Your task to perform on an android device: turn on the 24-hour format for clock Image 0: 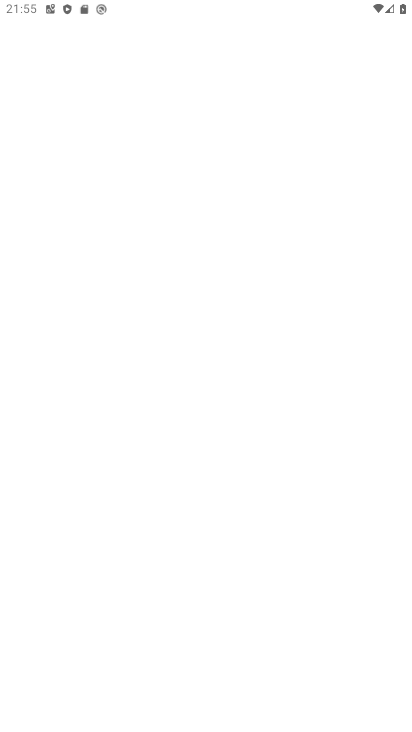
Step 0: drag from (184, 652) to (193, 180)
Your task to perform on an android device: turn on the 24-hour format for clock Image 1: 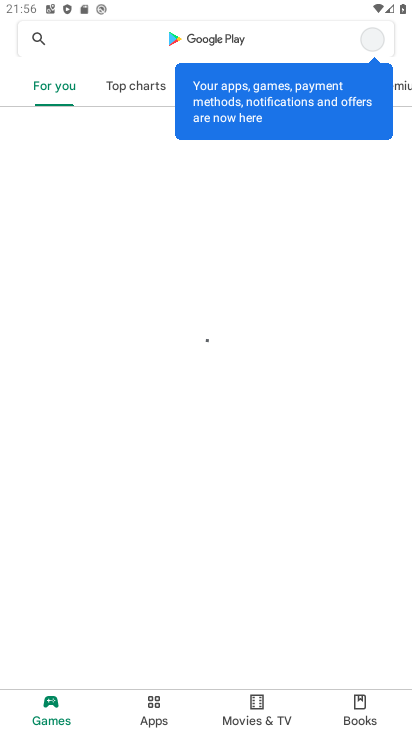
Step 1: press home button
Your task to perform on an android device: turn on the 24-hour format for clock Image 2: 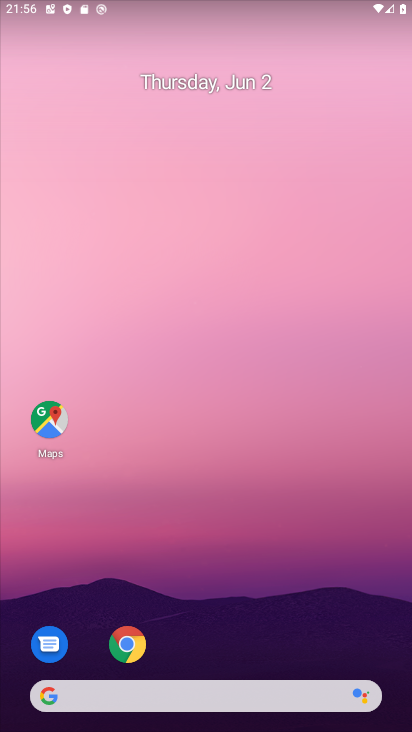
Step 2: drag from (216, 633) to (190, 244)
Your task to perform on an android device: turn on the 24-hour format for clock Image 3: 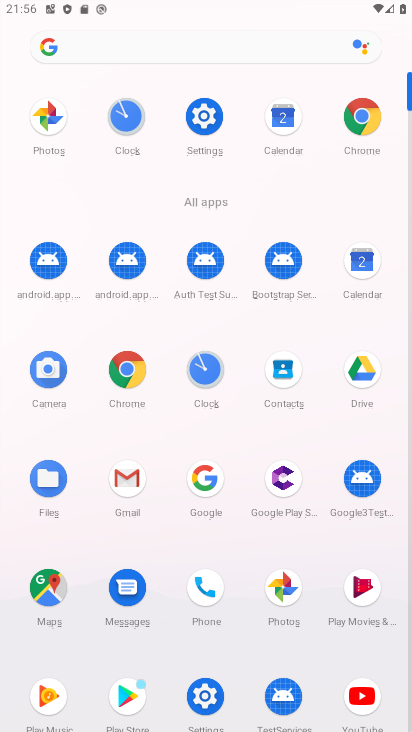
Step 3: click (186, 383)
Your task to perform on an android device: turn on the 24-hour format for clock Image 4: 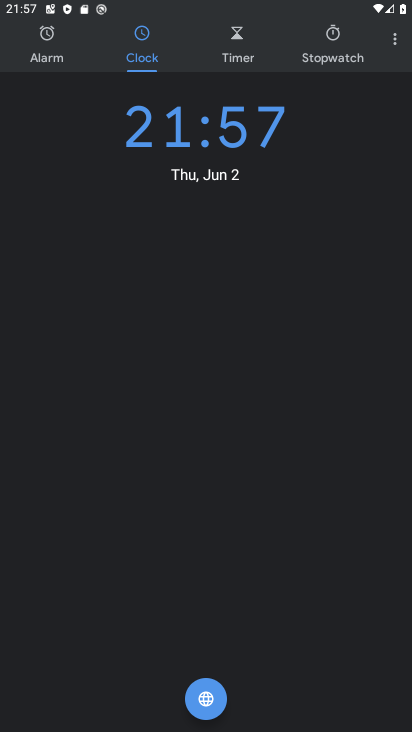
Step 4: click (391, 43)
Your task to perform on an android device: turn on the 24-hour format for clock Image 5: 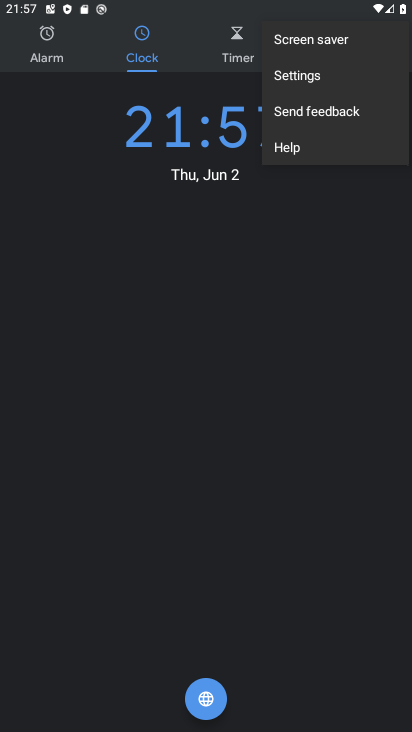
Step 5: click (314, 86)
Your task to perform on an android device: turn on the 24-hour format for clock Image 6: 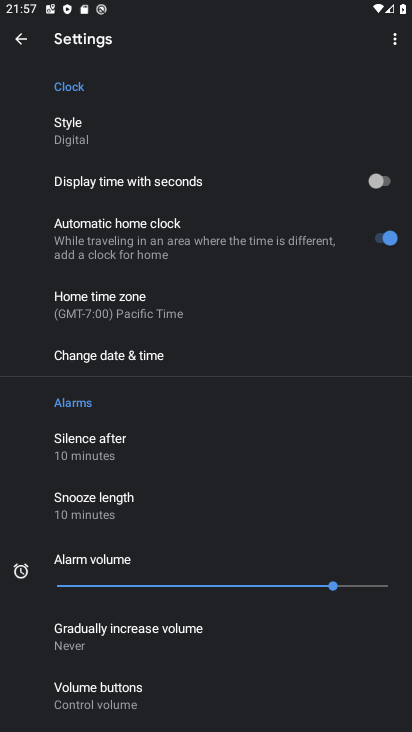
Step 6: click (138, 357)
Your task to perform on an android device: turn on the 24-hour format for clock Image 7: 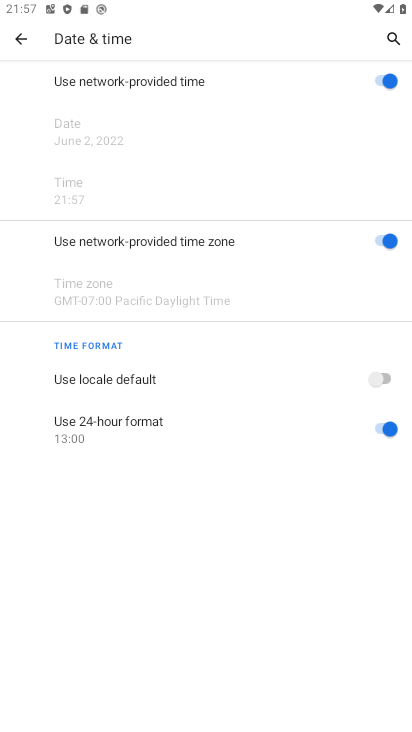
Step 7: task complete